Your task to perform on an android device: change the upload size in google photos Image 0: 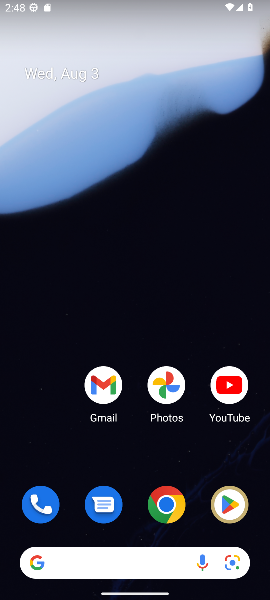
Step 0: drag from (67, 459) to (45, 4)
Your task to perform on an android device: change the upload size in google photos Image 1: 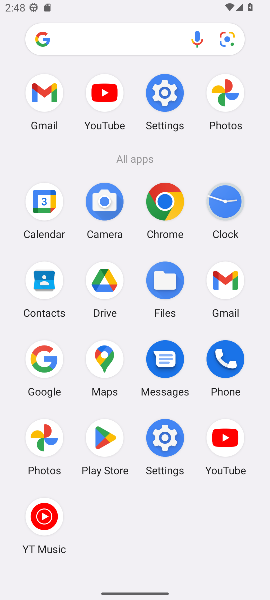
Step 1: click (43, 443)
Your task to perform on an android device: change the upload size in google photos Image 2: 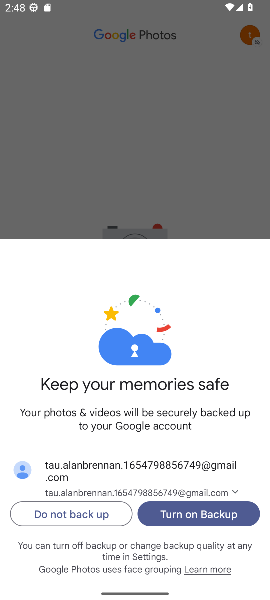
Step 2: click (191, 511)
Your task to perform on an android device: change the upload size in google photos Image 3: 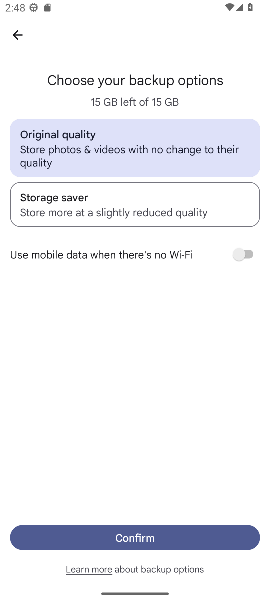
Step 3: click (91, 221)
Your task to perform on an android device: change the upload size in google photos Image 4: 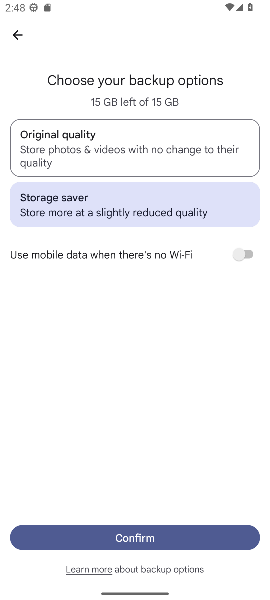
Step 4: click (141, 596)
Your task to perform on an android device: change the upload size in google photos Image 5: 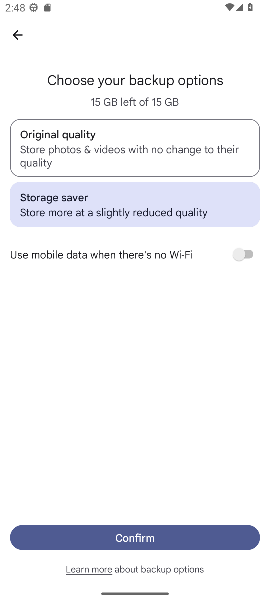
Step 5: click (139, 537)
Your task to perform on an android device: change the upload size in google photos Image 6: 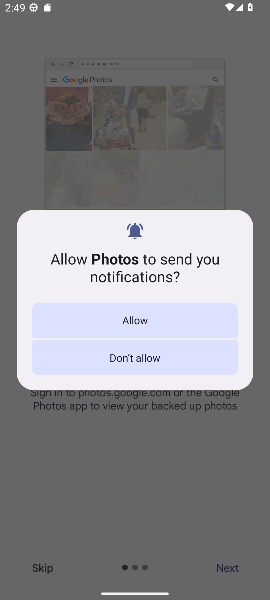
Step 6: task complete